Your task to perform on an android device: Go to Android settings Image 0: 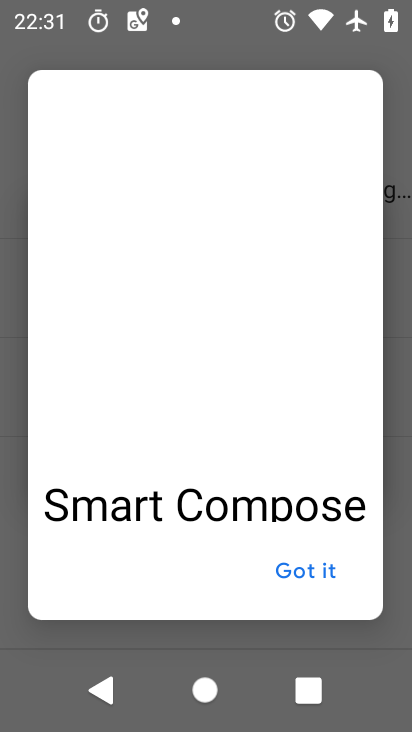
Step 0: press home button
Your task to perform on an android device: Go to Android settings Image 1: 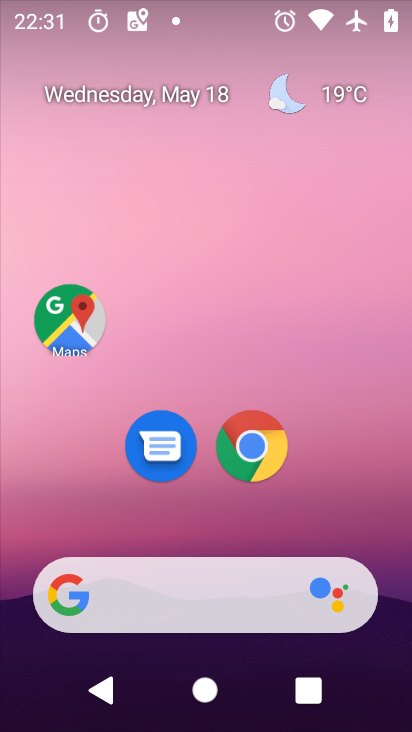
Step 1: drag from (161, 612) to (324, 9)
Your task to perform on an android device: Go to Android settings Image 2: 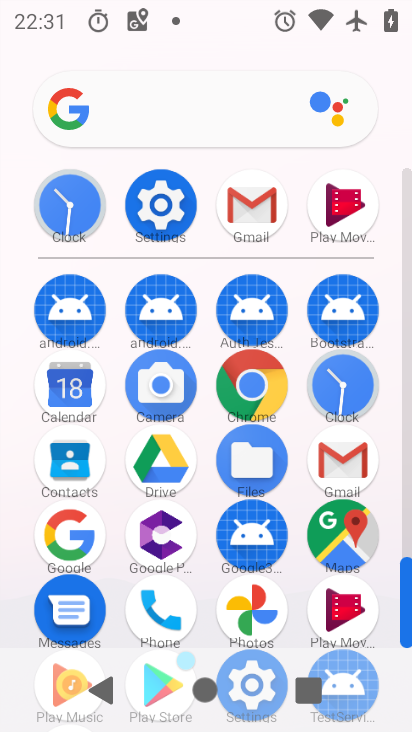
Step 2: click (172, 210)
Your task to perform on an android device: Go to Android settings Image 3: 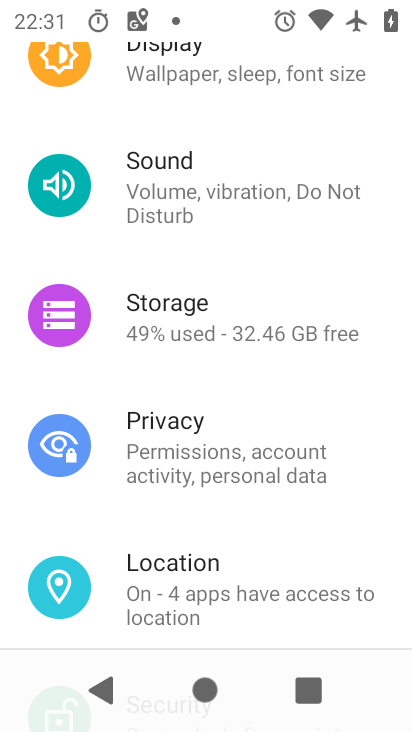
Step 3: task complete